Your task to perform on an android device: Open the calendar app, open the side menu, and click the "Day" option Image 0: 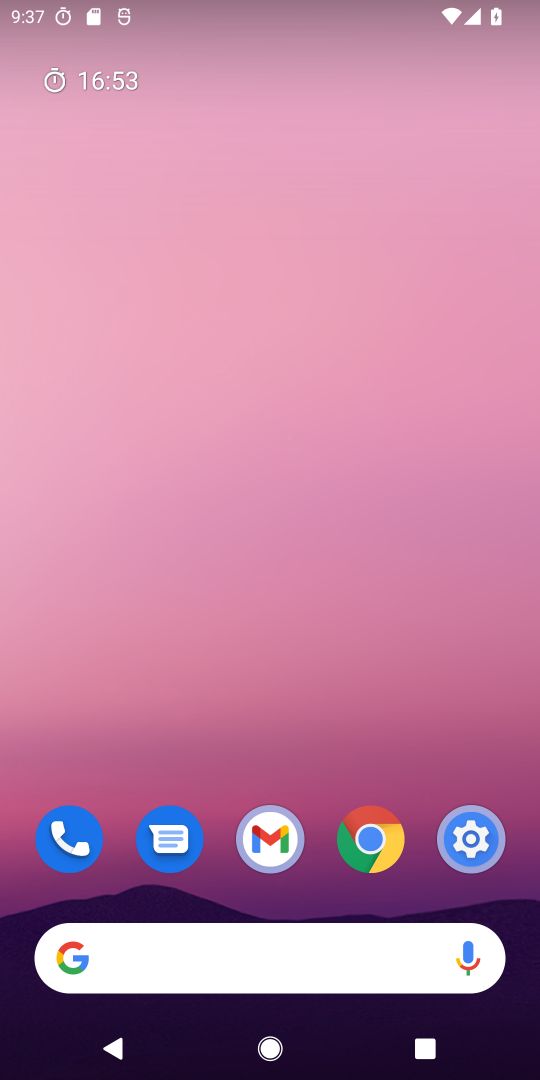
Step 0: drag from (308, 791) to (342, 12)
Your task to perform on an android device: Open the calendar app, open the side menu, and click the "Day" option Image 1: 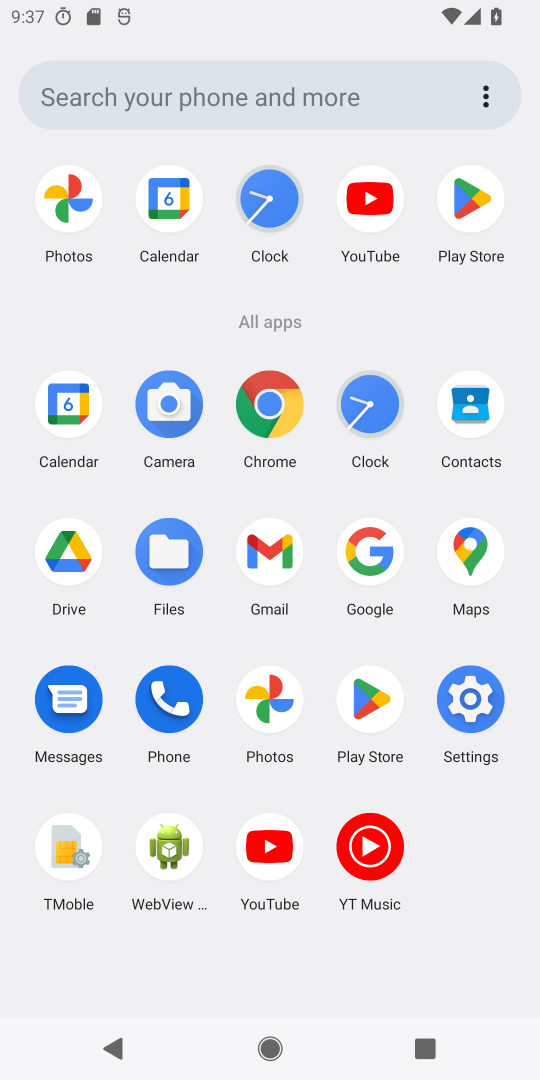
Step 1: click (70, 394)
Your task to perform on an android device: Open the calendar app, open the side menu, and click the "Day" option Image 2: 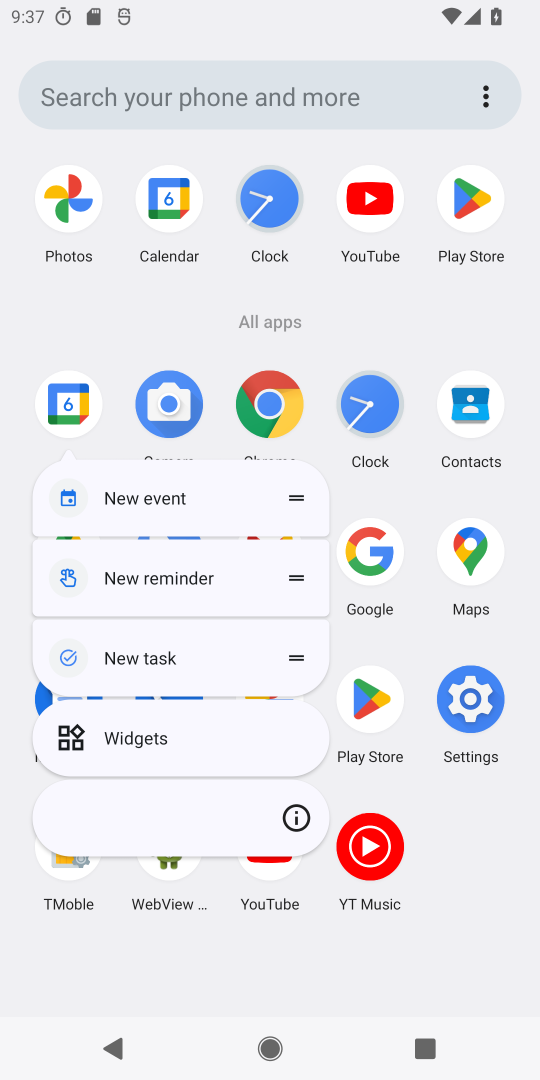
Step 2: click (62, 394)
Your task to perform on an android device: Open the calendar app, open the side menu, and click the "Day" option Image 3: 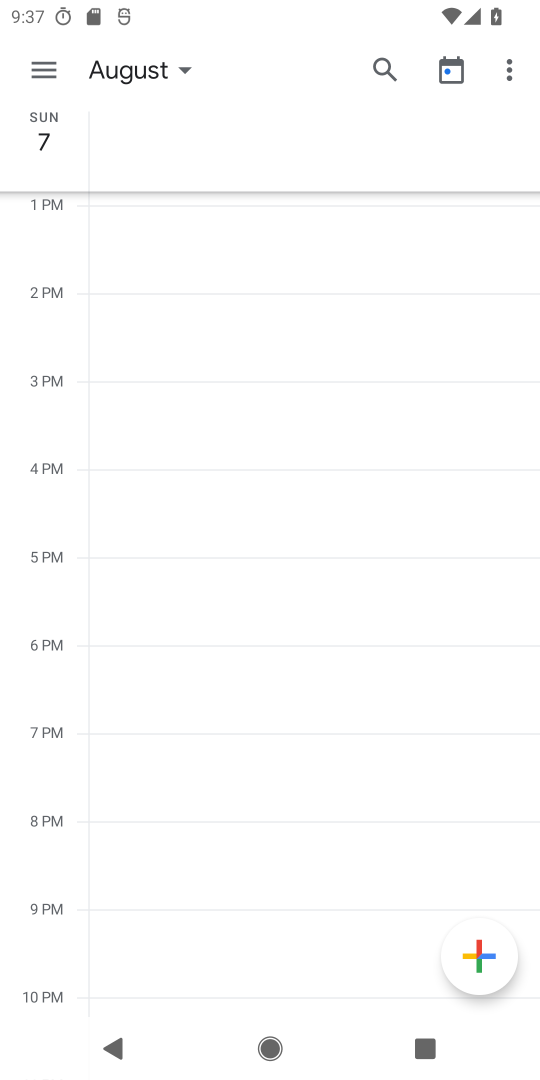
Step 3: click (25, 76)
Your task to perform on an android device: Open the calendar app, open the side menu, and click the "Day" option Image 4: 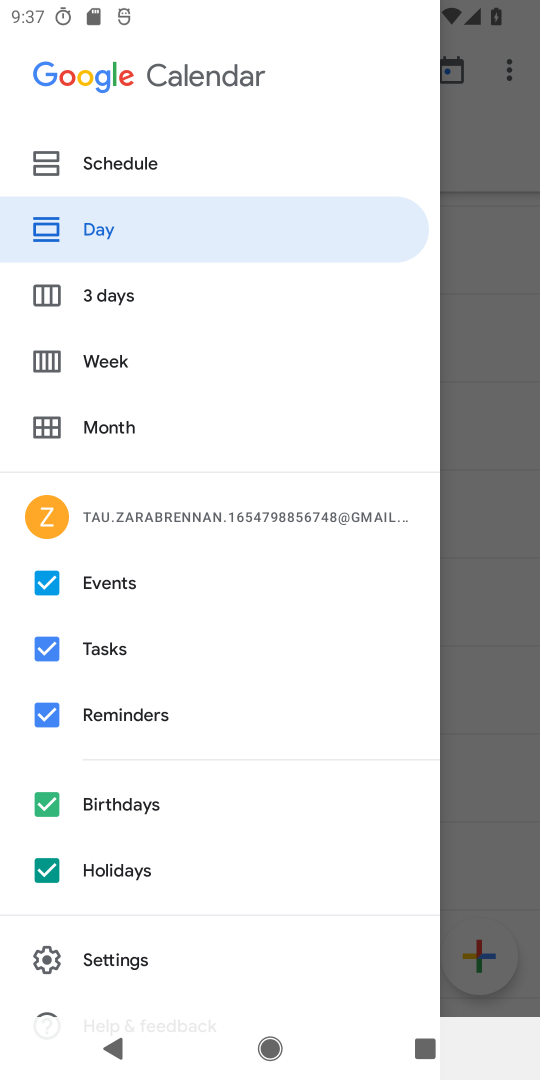
Step 4: click (101, 230)
Your task to perform on an android device: Open the calendar app, open the side menu, and click the "Day" option Image 5: 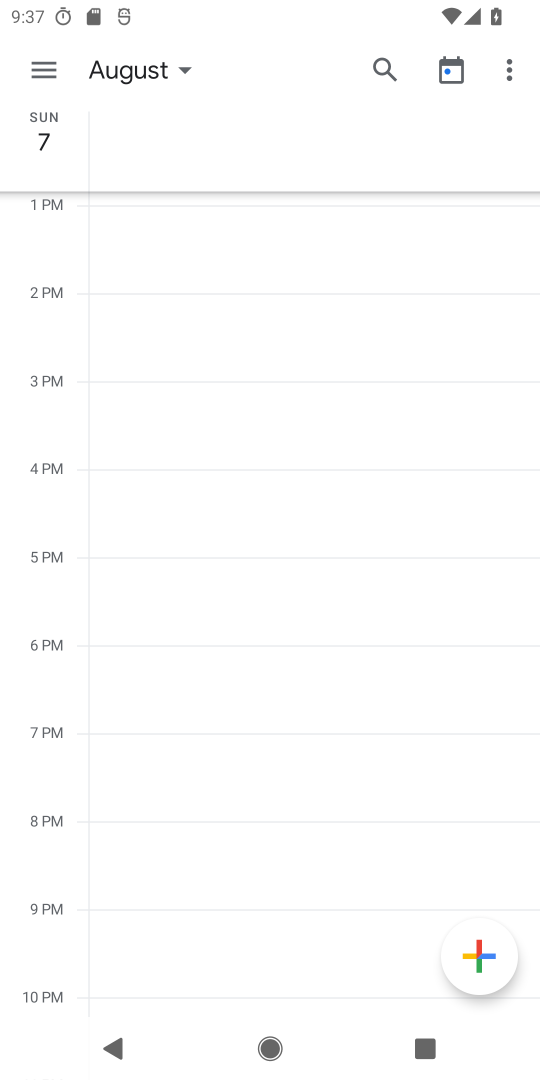
Step 5: task complete